Your task to perform on an android device: Go to Android settings Image 0: 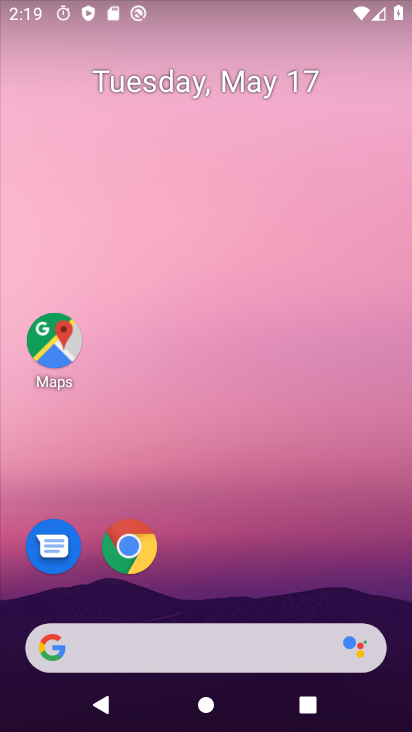
Step 0: drag from (237, 533) to (295, 83)
Your task to perform on an android device: Go to Android settings Image 1: 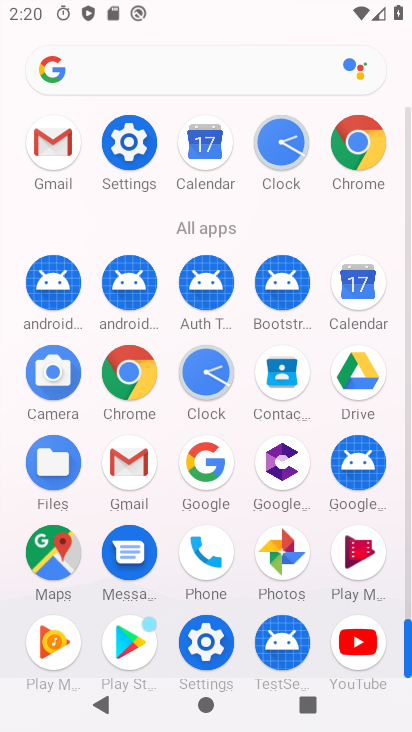
Step 1: click (148, 165)
Your task to perform on an android device: Go to Android settings Image 2: 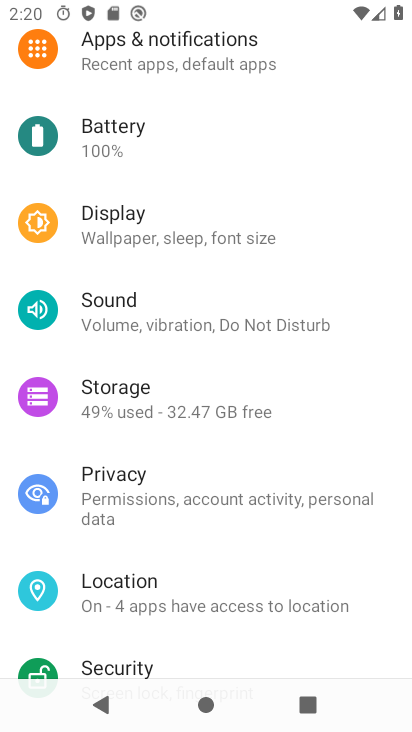
Step 2: drag from (148, 442) to (154, 407)
Your task to perform on an android device: Go to Android settings Image 3: 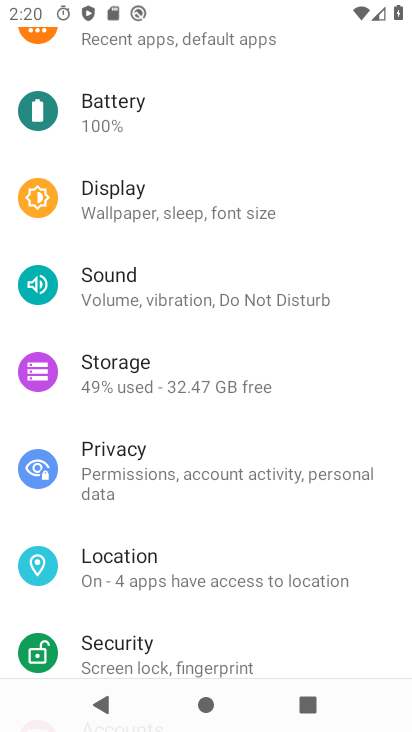
Step 3: drag from (180, 526) to (240, 183)
Your task to perform on an android device: Go to Android settings Image 4: 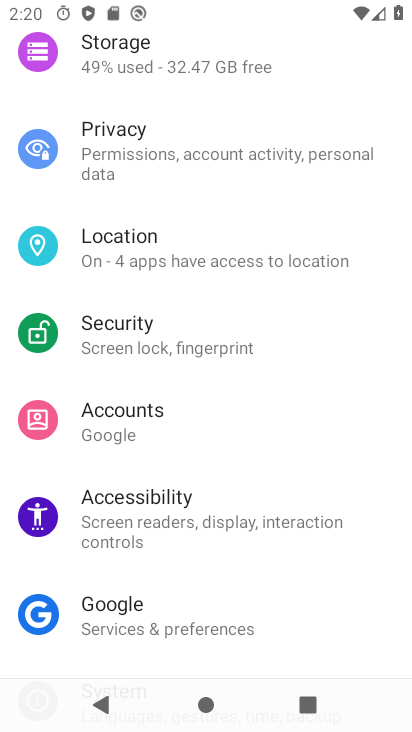
Step 4: drag from (238, 535) to (293, 159)
Your task to perform on an android device: Go to Android settings Image 5: 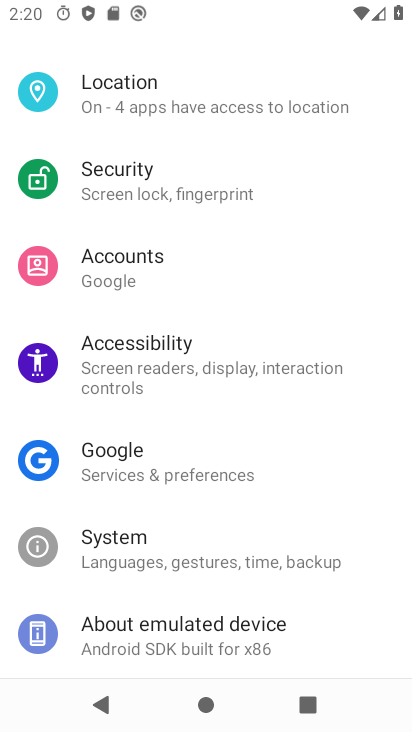
Step 5: click (256, 637)
Your task to perform on an android device: Go to Android settings Image 6: 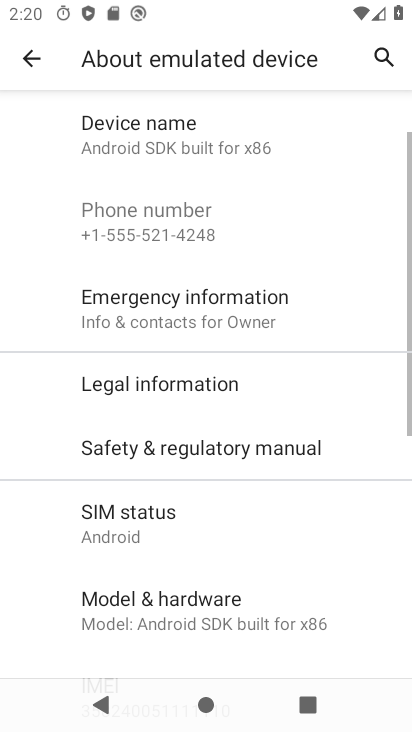
Step 6: drag from (256, 593) to (319, 220)
Your task to perform on an android device: Go to Android settings Image 7: 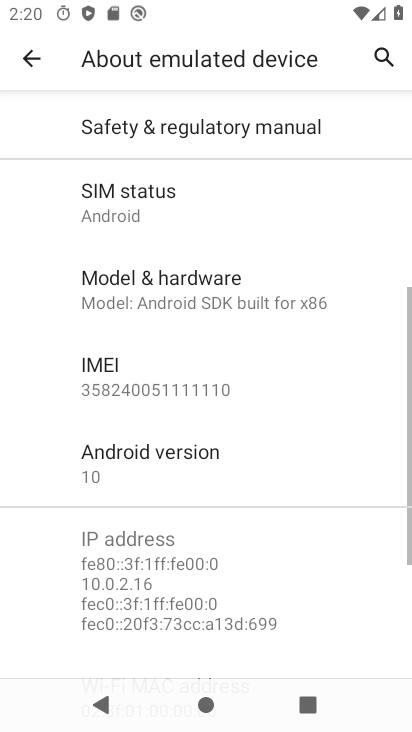
Step 7: click (206, 474)
Your task to perform on an android device: Go to Android settings Image 8: 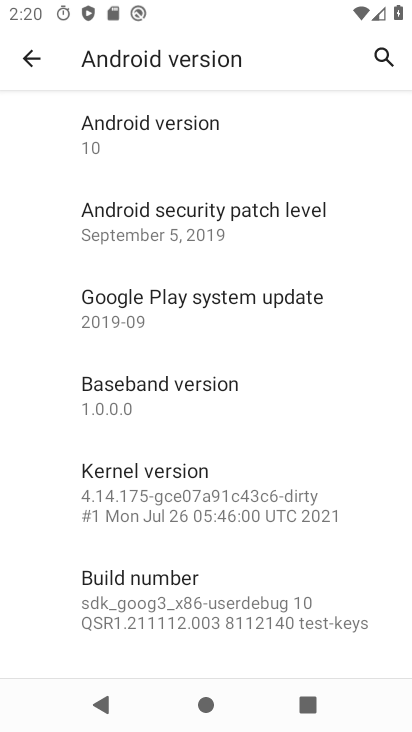
Step 8: task complete